Your task to perform on an android device: change keyboard looks Image 0: 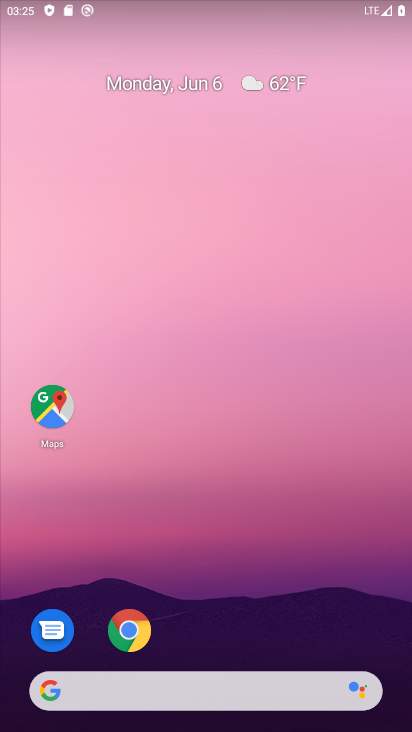
Step 0: press home button
Your task to perform on an android device: change keyboard looks Image 1: 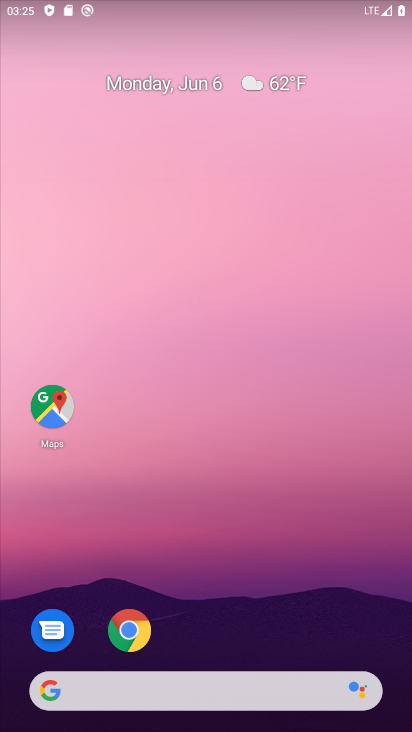
Step 1: drag from (206, 637) to (322, 30)
Your task to perform on an android device: change keyboard looks Image 2: 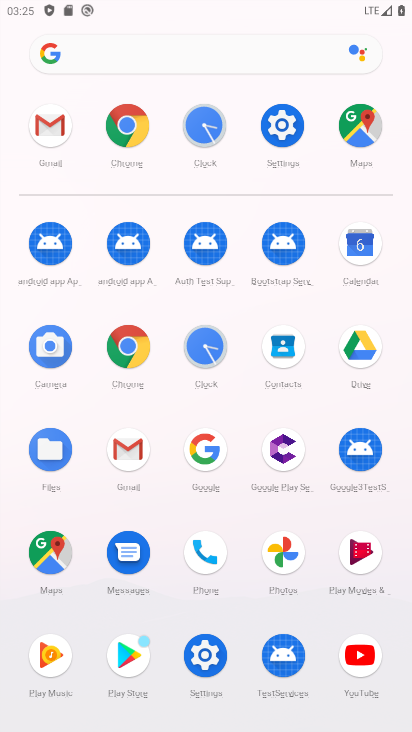
Step 2: click (291, 110)
Your task to perform on an android device: change keyboard looks Image 3: 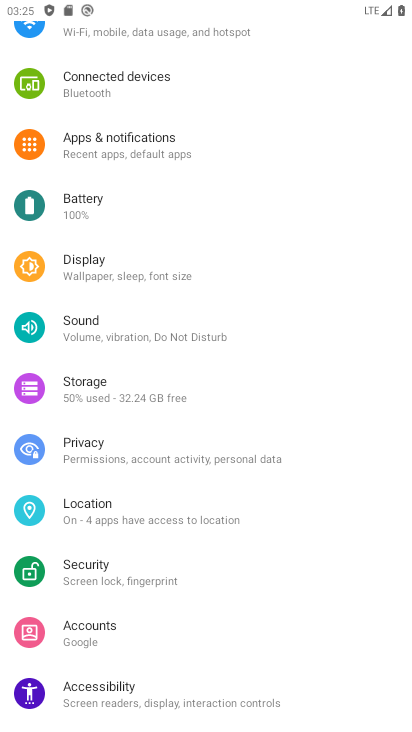
Step 3: drag from (165, 498) to (199, 137)
Your task to perform on an android device: change keyboard looks Image 4: 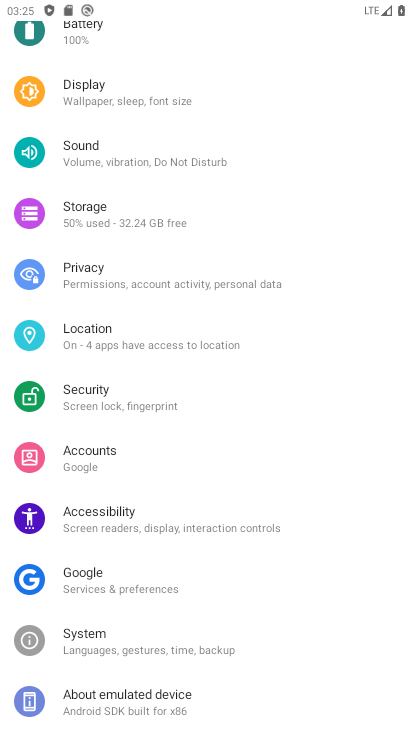
Step 4: click (118, 638)
Your task to perform on an android device: change keyboard looks Image 5: 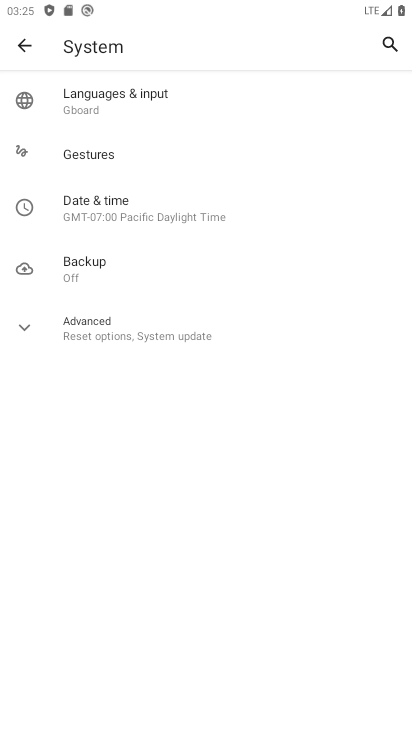
Step 5: click (139, 106)
Your task to perform on an android device: change keyboard looks Image 6: 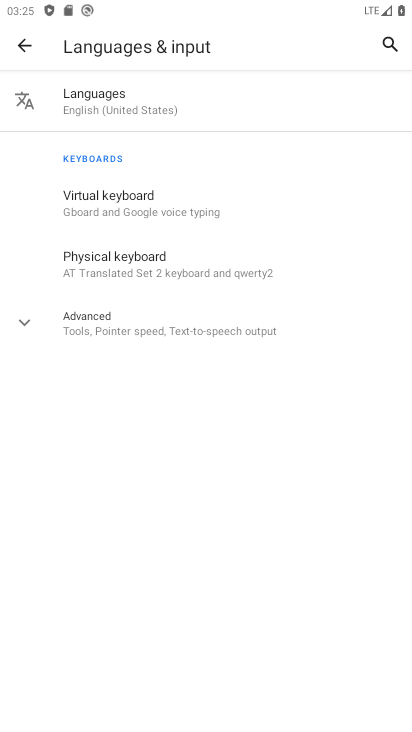
Step 6: click (84, 189)
Your task to perform on an android device: change keyboard looks Image 7: 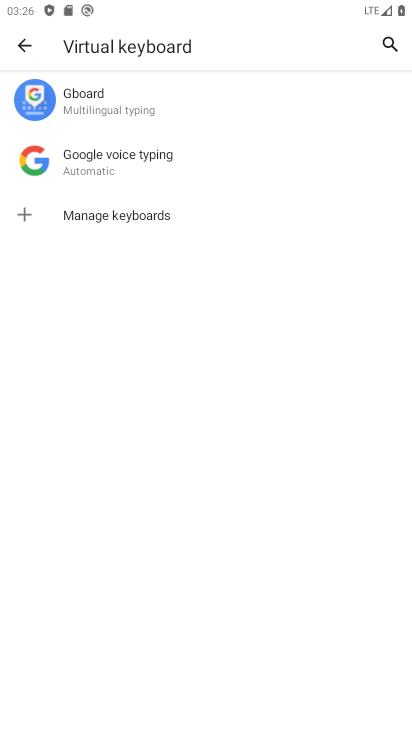
Step 7: click (123, 99)
Your task to perform on an android device: change keyboard looks Image 8: 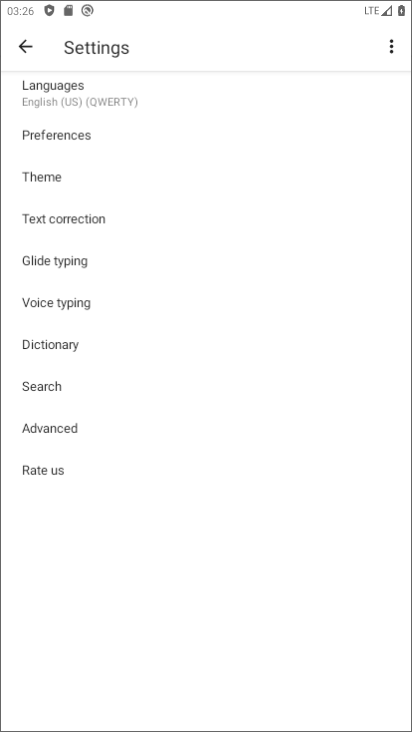
Step 8: click (110, 156)
Your task to perform on an android device: change keyboard looks Image 9: 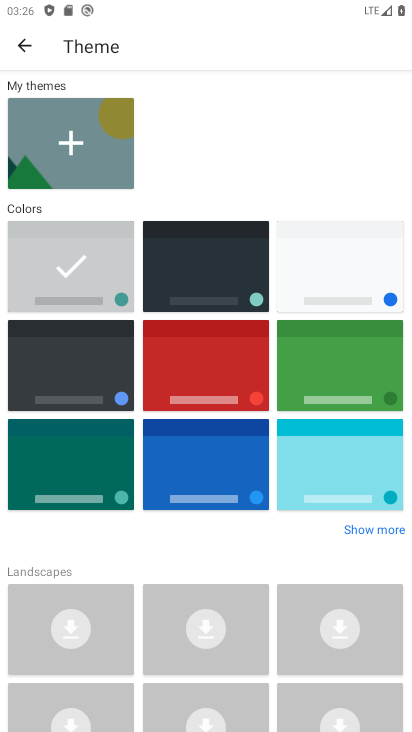
Step 9: click (179, 352)
Your task to perform on an android device: change keyboard looks Image 10: 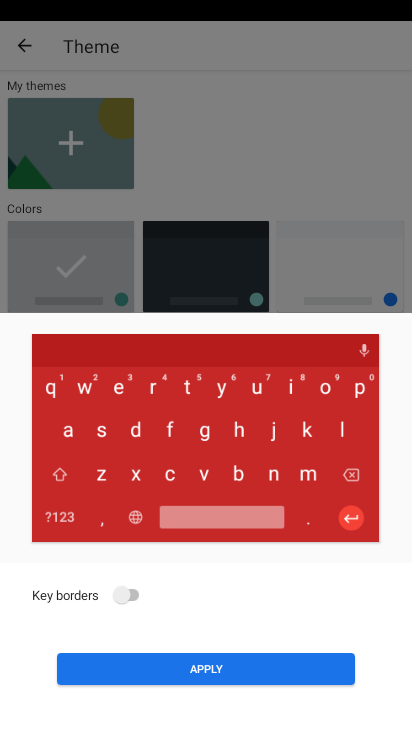
Step 10: click (195, 659)
Your task to perform on an android device: change keyboard looks Image 11: 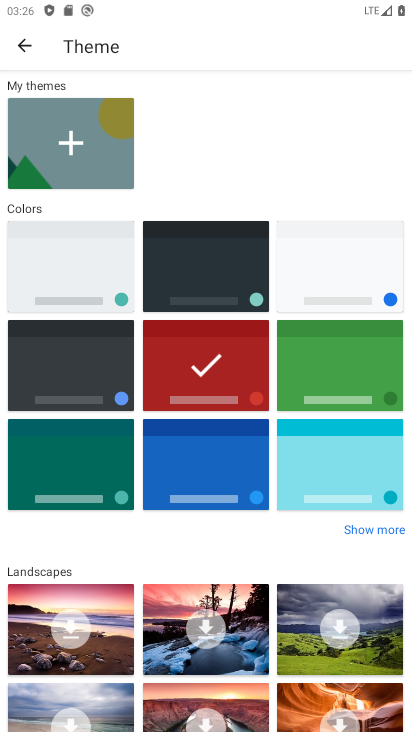
Step 11: task complete